Your task to perform on an android device: set an alarm Image 0: 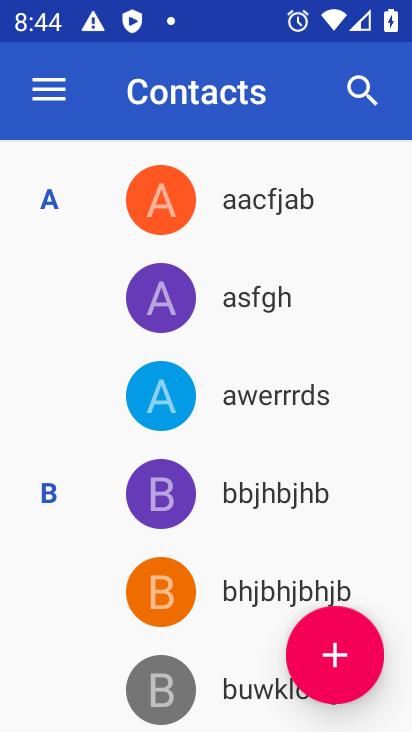
Step 0: press home button
Your task to perform on an android device: set an alarm Image 1: 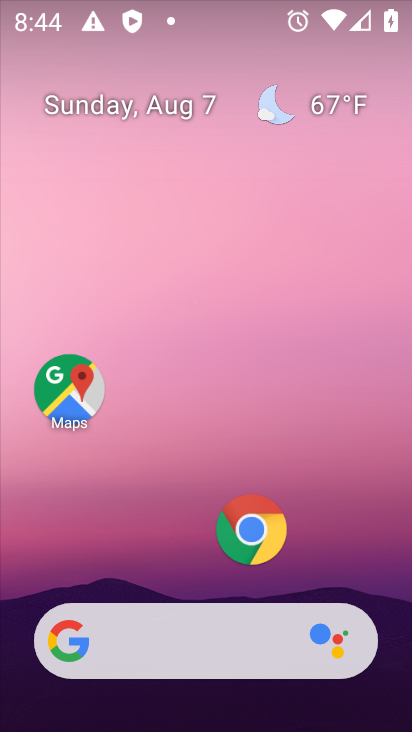
Step 1: drag from (172, 456) to (212, 138)
Your task to perform on an android device: set an alarm Image 2: 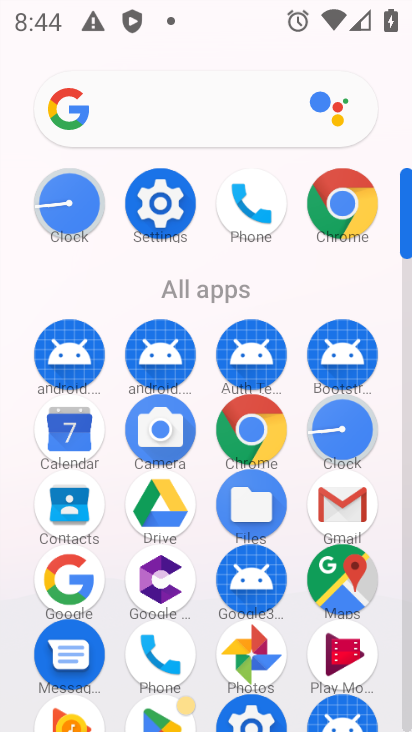
Step 2: click (331, 439)
Your task to perform on an android device: set an alarm Image 3: 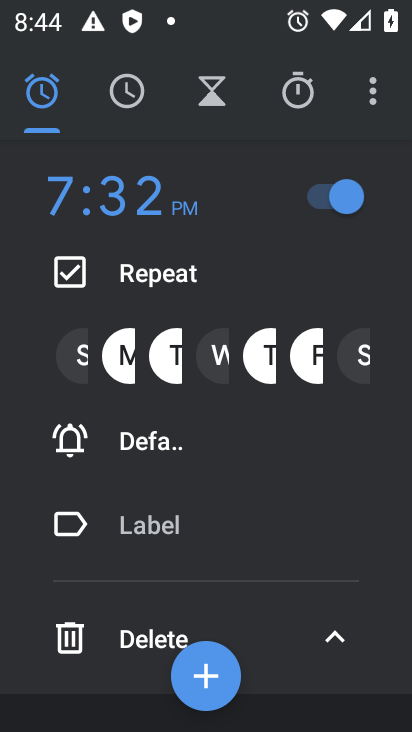
Step 3: click (329, 634)
Your task to perform on an android device: set an alarm Image 4: 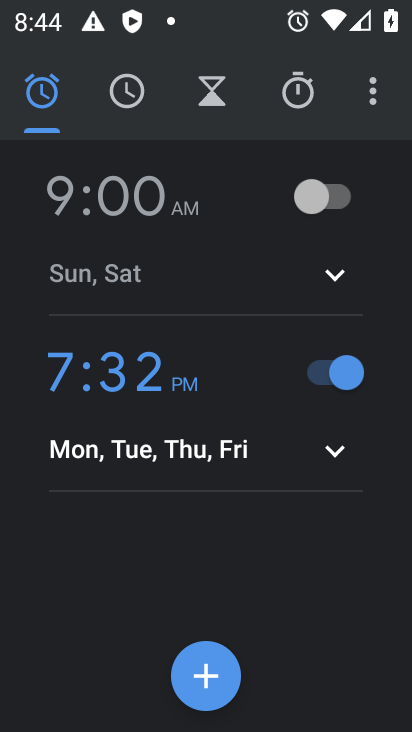
Step 4: click (117, 207)
Your task to perform on an android device: set an alarm Image 5: 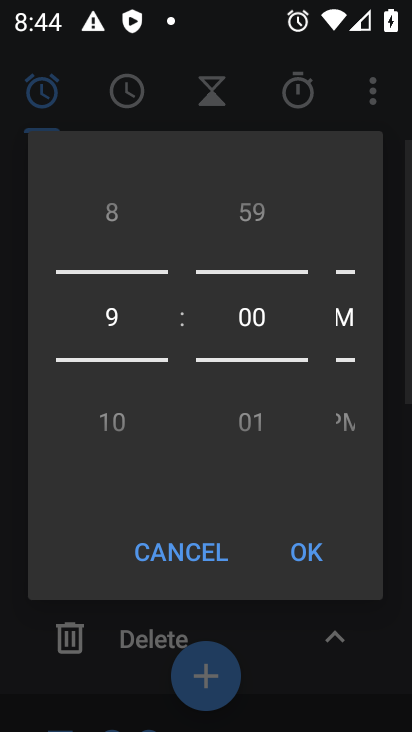
Step 5: click (108, 416)
Your task to perform on an android device: set an alarm Image 6: 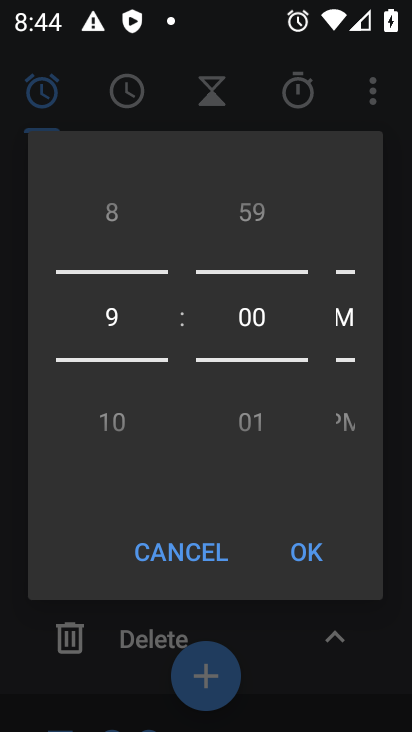
Step 6: click (258, 224)
Your task to perform on an android device: set an alarm Image 7: 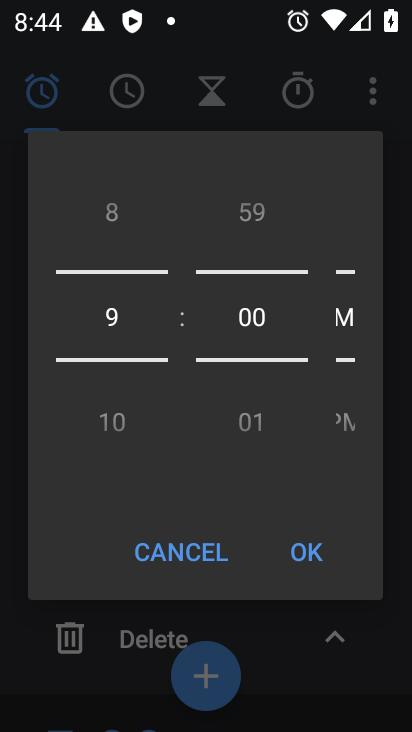
Step 7: drag from (114, 327) to (119, 154)
Your task to perform on an android device: set an alarm Image 8: 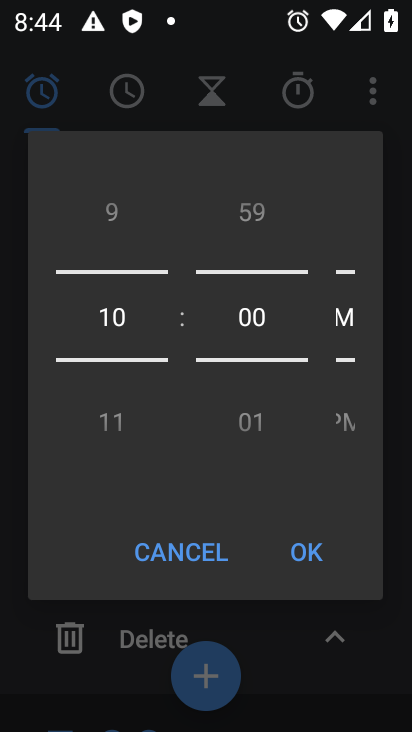
Step 8: drag from (255, 224) to (238, 564)
Your task to perform on an android device: set an alarm Image 9: 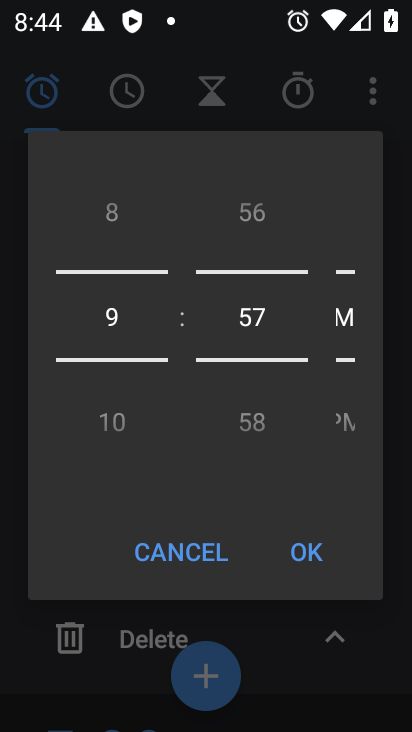
Step 9: click (337, 188)
Your task to perform on an android device: set an alarm Image 10: 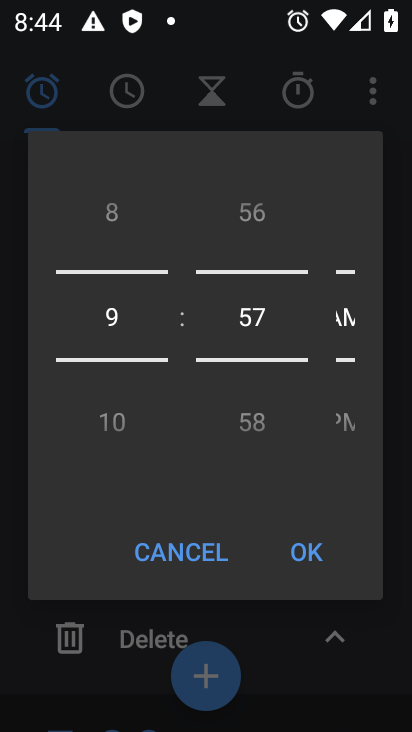
Step 10: drag from (354, 339) to (366, 39)
Your task to perform on an android device: set an alarm Image 11: 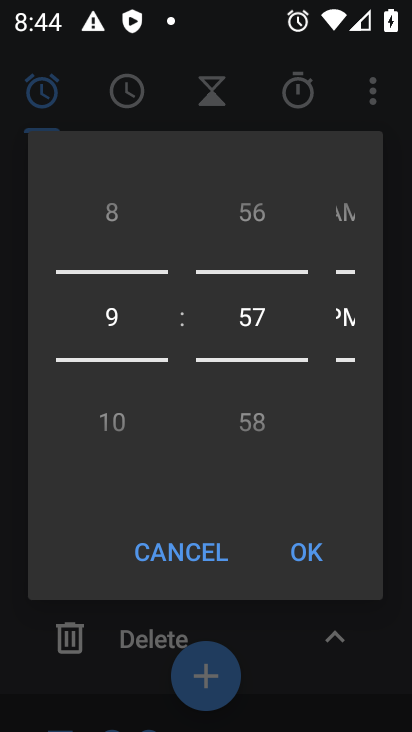
Step 11: click (293, 563)
Your task to perform on an android device: set an alarm Image 12: 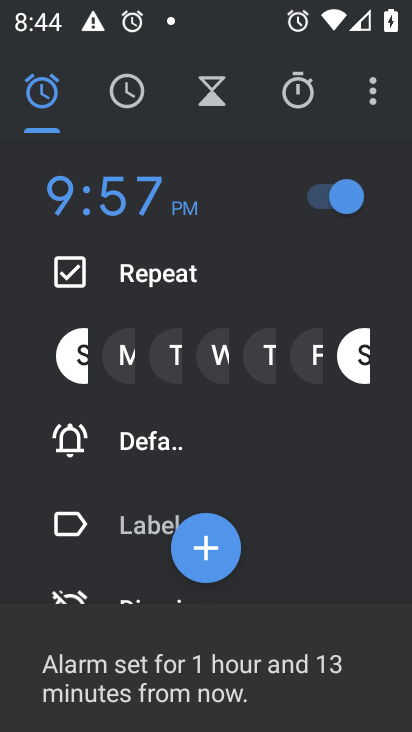
Step 12: click (227, 353)
Your task to perform on an android device: set an alarm Image 13: 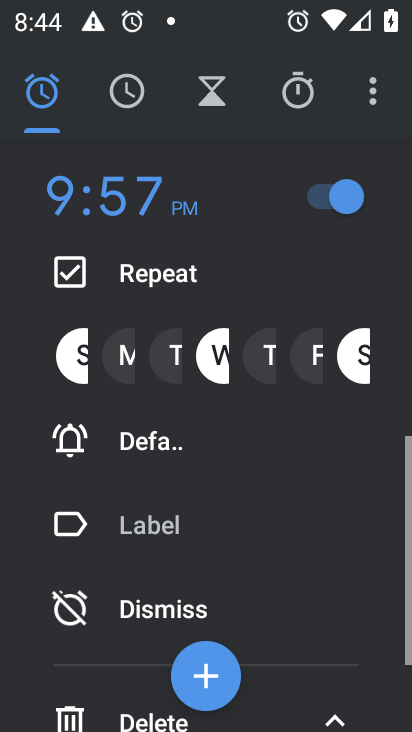
Step 13: click (254, 355)
Your task to perform on an android device: set an alarm Image 14: 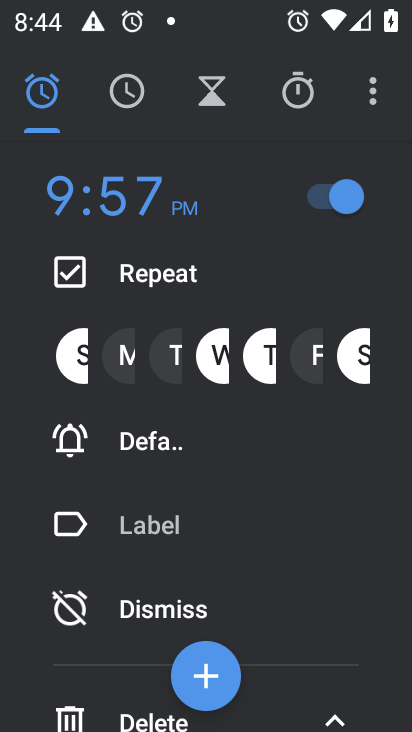
Step 14: task complete